Your task to perform on an android device: Go to Yahoo.com Image 0: 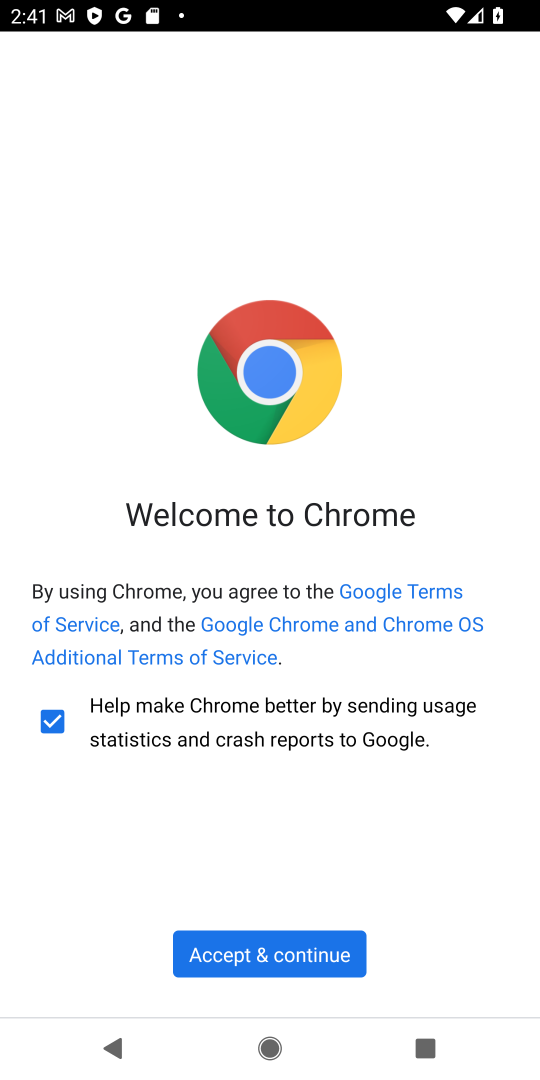
Step 0: click (330, 956)
Your task to perform on an android device: Go to Yahoo.com Image 1: 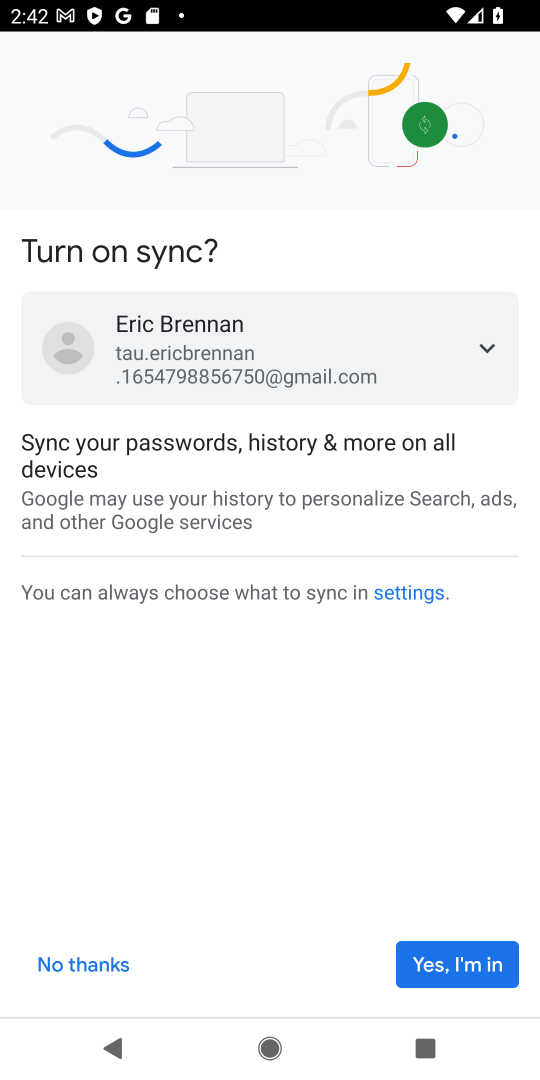
Step 1: click (482, 958)
Your task to perform on an android device: Go to Yahoo.com Image 2: 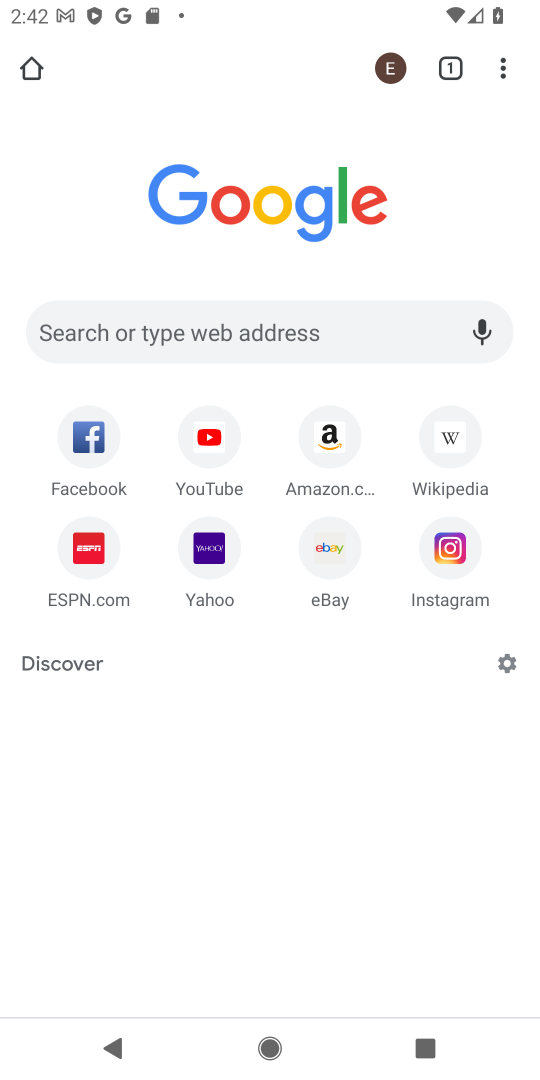
Step 2: click (197, 551)
Your task to perform on an android device: Go to Yahoo.com Image 3: 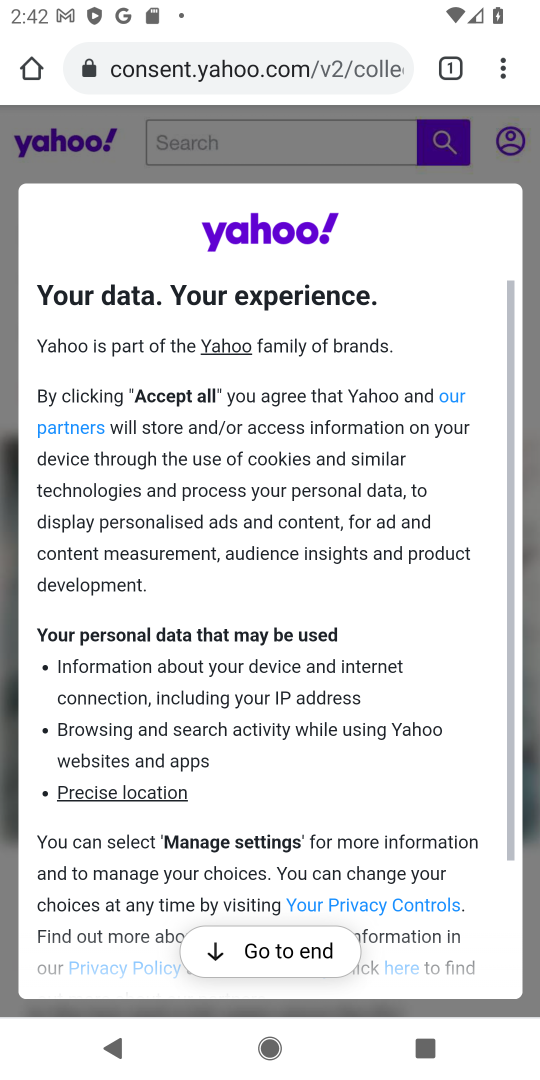
Step 3: task complete